Your task to perform on an android device: Toggle the flashlight Image 0: 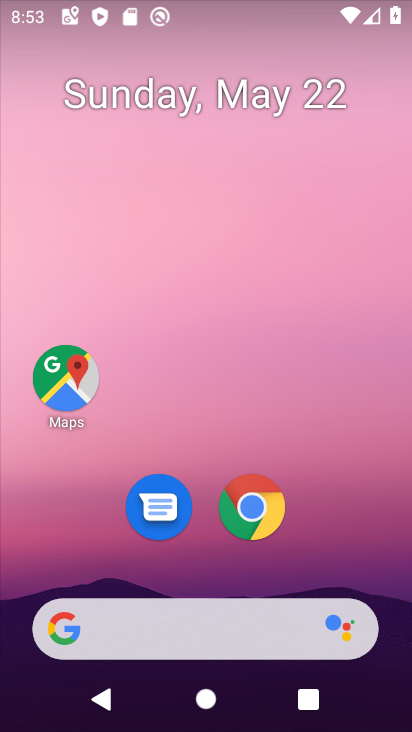
Step 0: drag from (219, 0) to (307, 487)
Your task to perform on an android device: Toggle the flashlight Image 1: 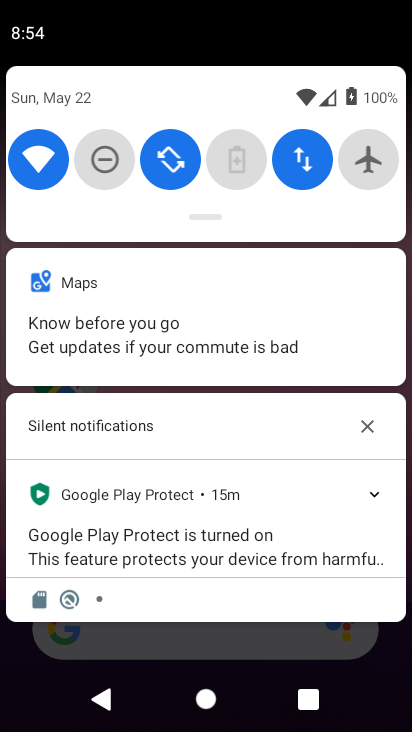
Step 1: drag from (201, 238) to (187, 461)
Your task to perform on an android device: Toggle the flashlight Image 2: 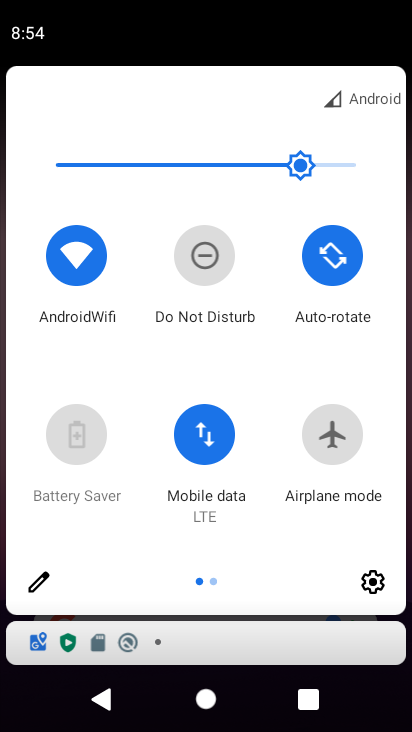
Step 2: click (32, 585)
Your task to perform on an android device: Toggle the flashlight Image 3: 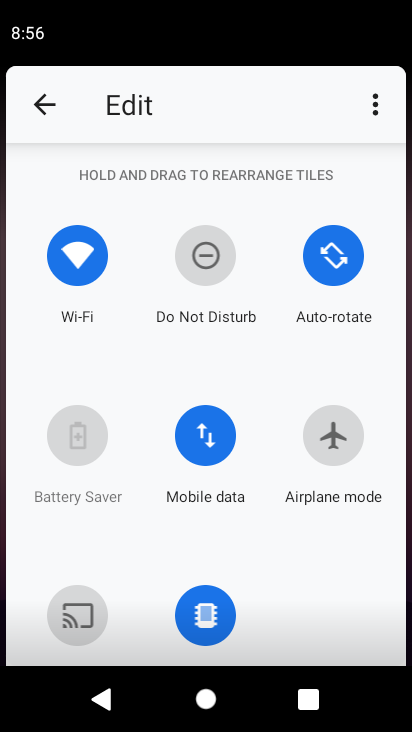
Step 3: task complete